Your task to perform on an android device: Go to CNN.com Image 0: 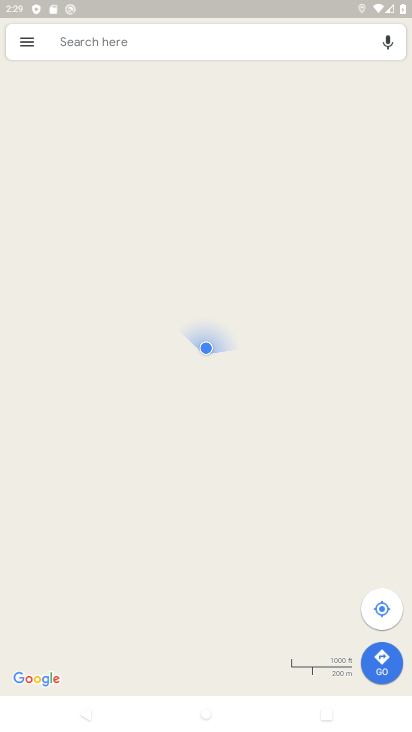
Step 0: press home button
Your task to perform on an android device: Go to CNN.com Image 1: 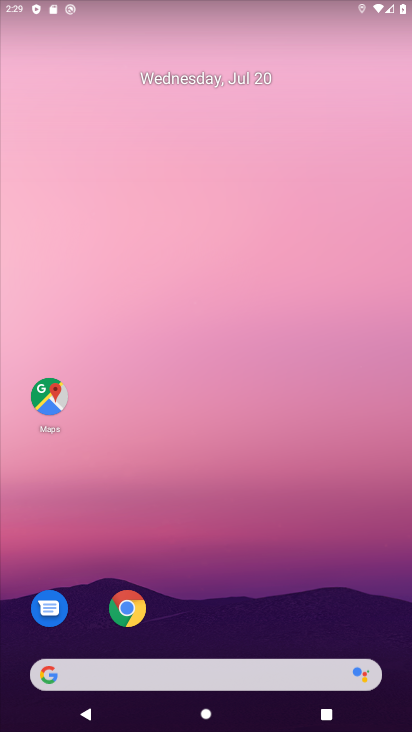
Step 1: click (115, 604)
Your task to perform on an android device: Go to CNN.com Image 2: 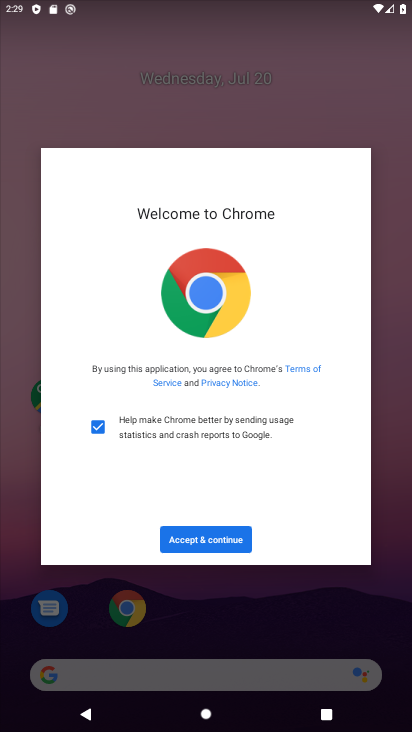
Step 2: click (217, 542)
Your task to perform on an android device: Go to CNN.com Image 3: 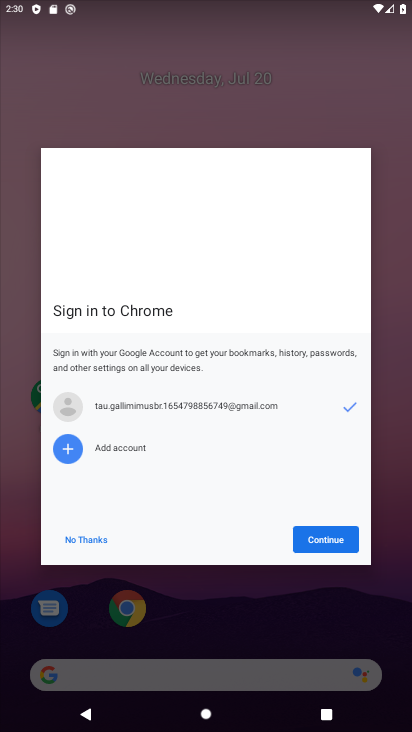
Step 3: click (329, 542)
Your task to perform on an android device: Go to CNN.com Image 4: 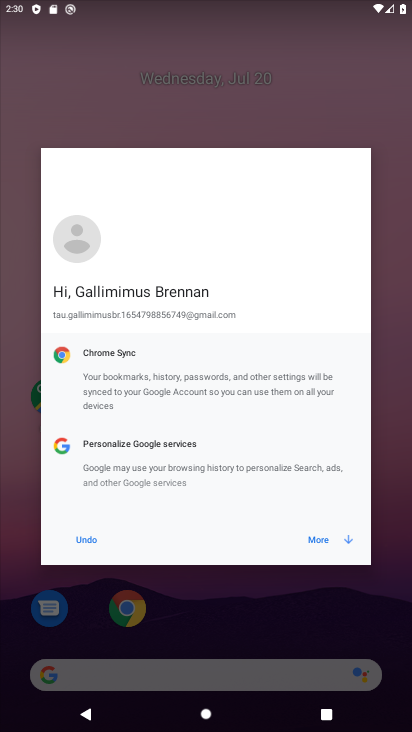
Step 4: click (342, 544)
Your task to perform on an android device: Go to CNN.com Image 5: 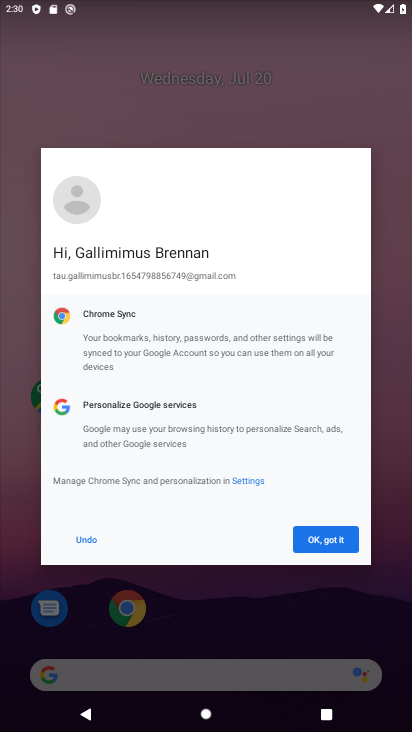
Step 5: click (334, 545)
Your task to perform on an android device: Go to CNN.com Image 6: 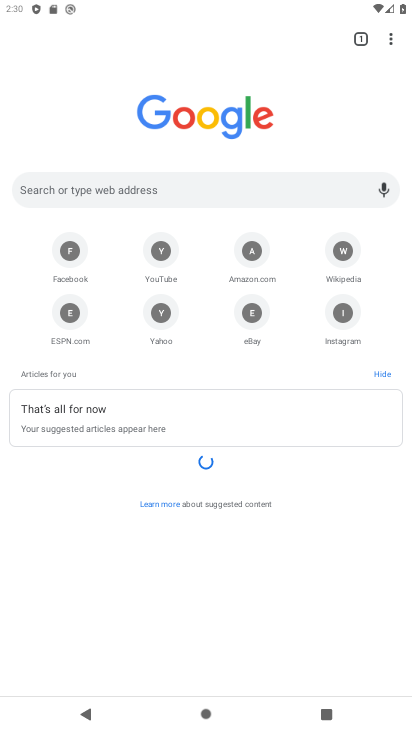
Step 6: click (276, 181)
Your task to perform on an android device: Go to CNN.com Image 7: 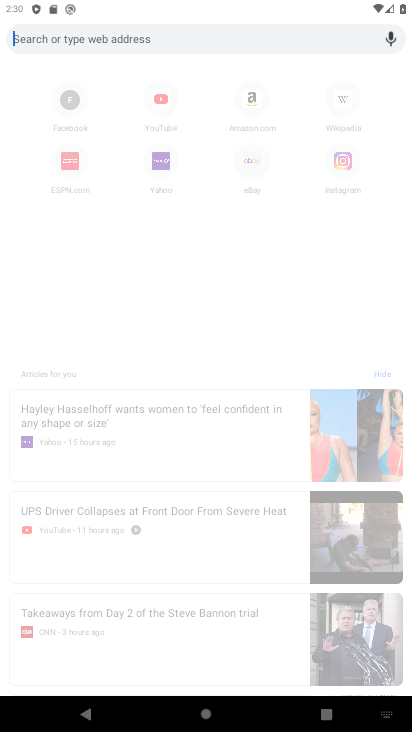
Step 7: type "CNN.com"
Your task to perform on an android device: Go to CNN.com Image 8: 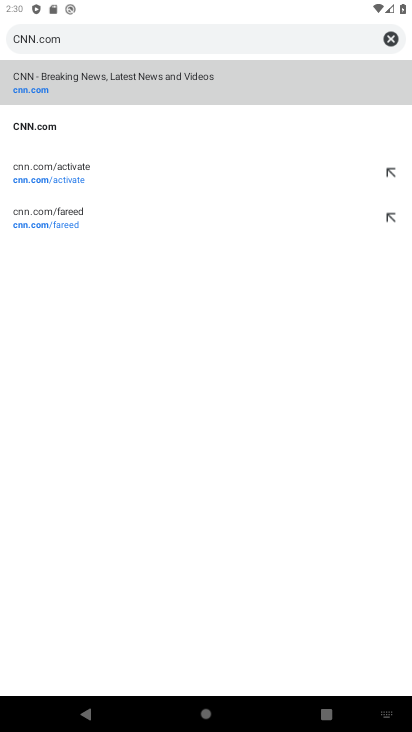
Step 8: click (224, 69)
Your task to perform on an android device: Go to CNN.com Image 9: 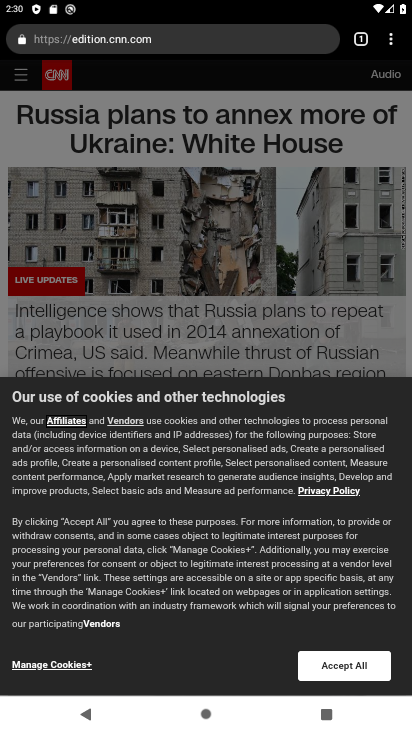
Step 9: task complete